Your task to perform on an android device: snooze an email in the gmail app Image 0: 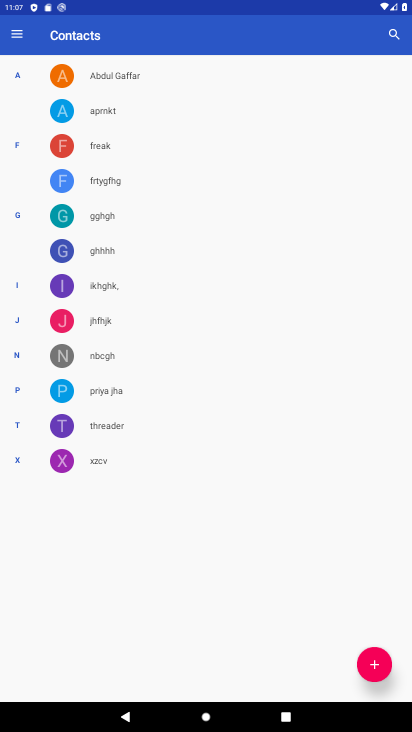
Step 0: press home button
Your task to perform on an android device: snooze an email in the gmail app Image 1: 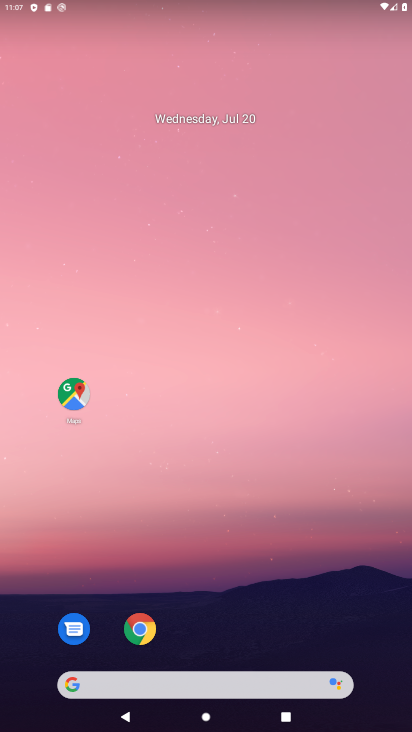
Step 1: drag from (287, 697) to (321, 80)
Your task to perform on an android device: snooze an email in the gmail app Image 2: 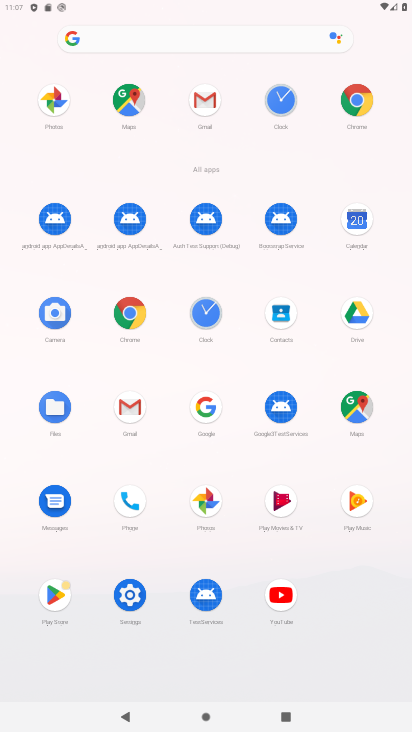
Step 2: click (139, 411)
Your task to perform on an android device: snooze an email in the gmail app Image 3: 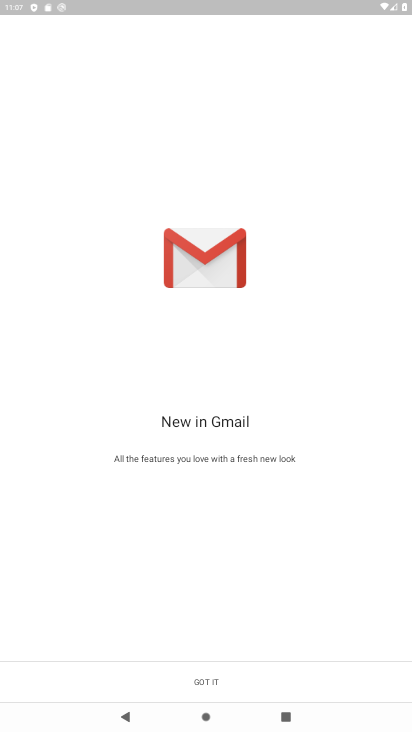
Step 3: click (165, 683)
Your task to perform on an android device: snooze an email in the gmail app Image 4: 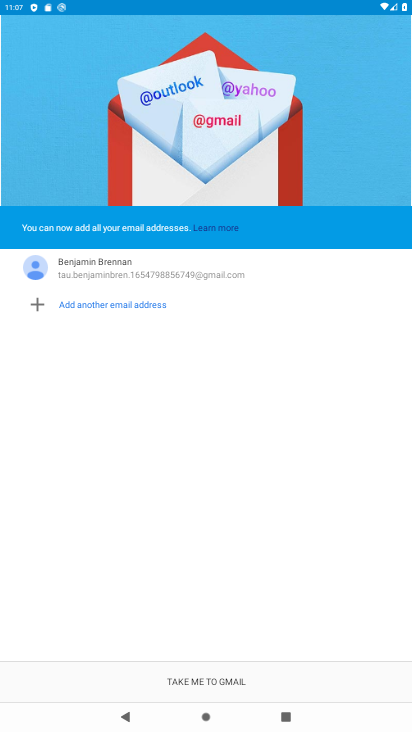
Step 4: click (172, 675)
Your task to perform on an android device: snooze an email in the gmail app Image 5: 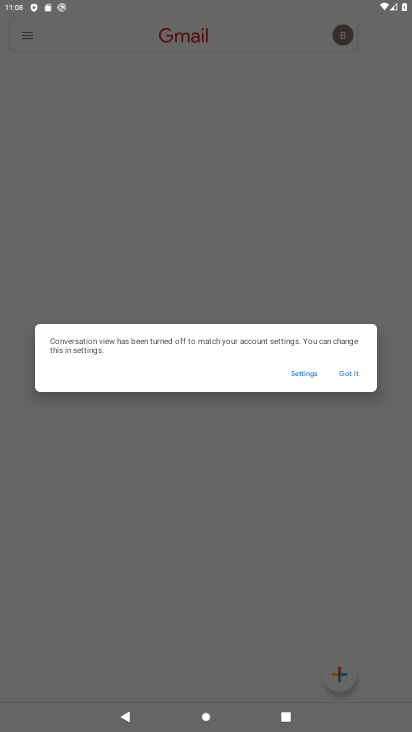
Step 5: click (343, 375)
Your task to perform on an android device: snooze an email in the gmail app Image 6: 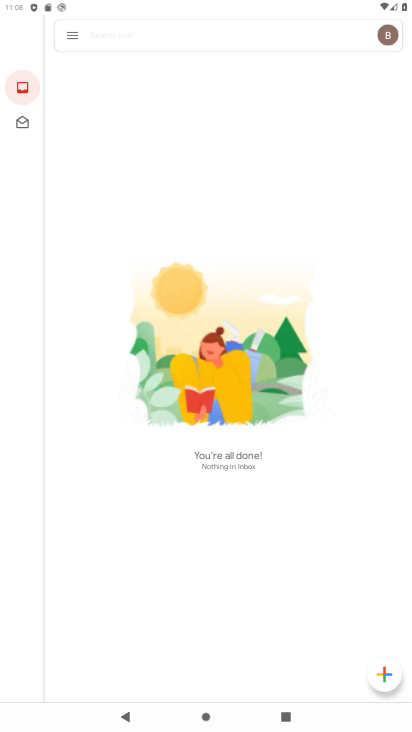
Step 6: click (77, 41)
Your task to perform on an android device: snooze an email in the gmail app Image 7: 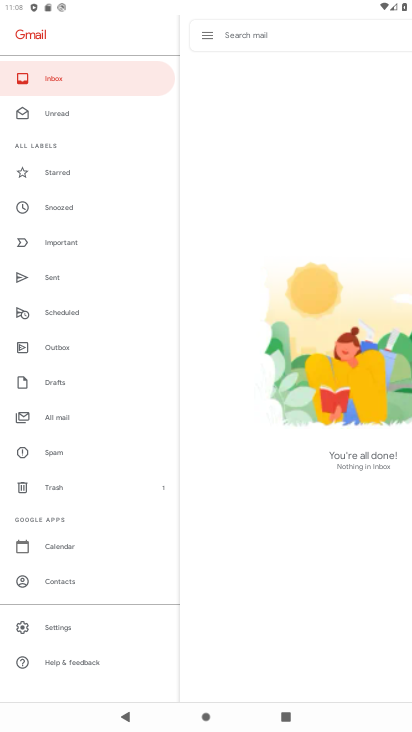
Step 7: click (68, 208)
Your task to perform on an android device: snooze an email in the gmail app Image 8: 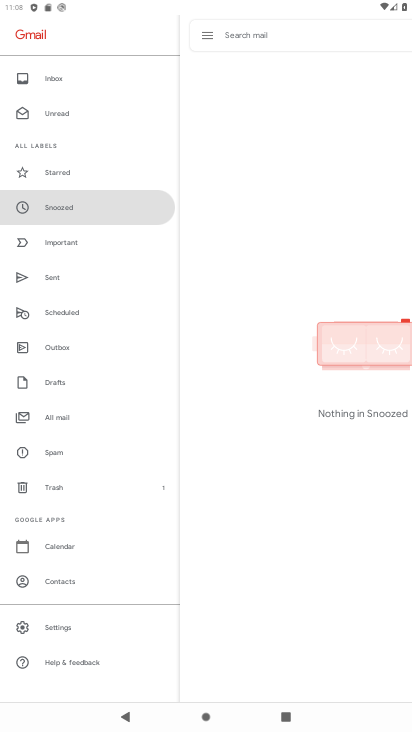
Step 8: task complete